Your task to perform on an android device: change notification settings in the gmail app Image 0: 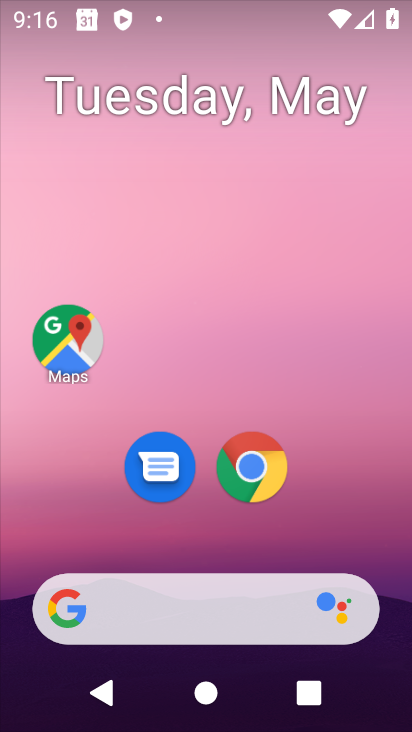
Step 0: drag from (321, 524) to (273, 50)
Your task to perform on an android device: change notification settings in the gmail app Image 1: 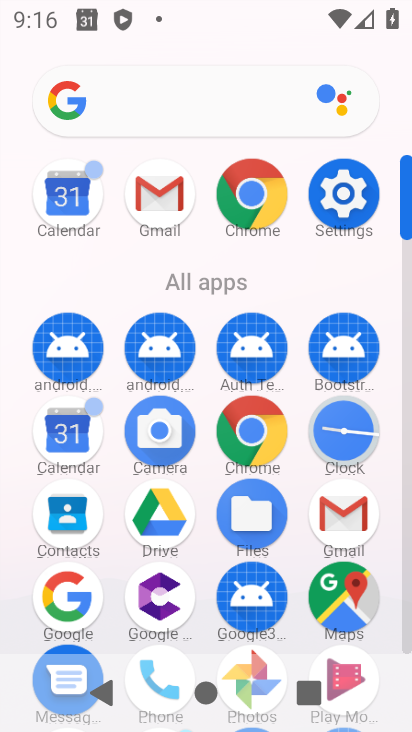
Step 1: drag from (23, 612) to (36, 299)
Your task to perform on an android device: change notification settings in the gmail app Image 2: 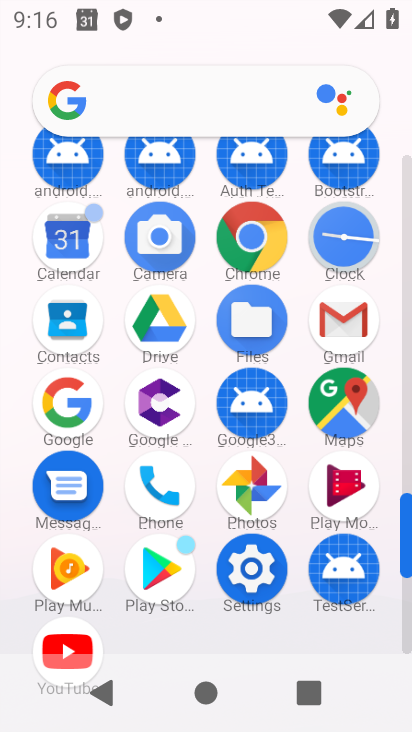
Step 2: click (344, 313)
Your task to perform on an android device: change notification settings in the gmail app Image 3: 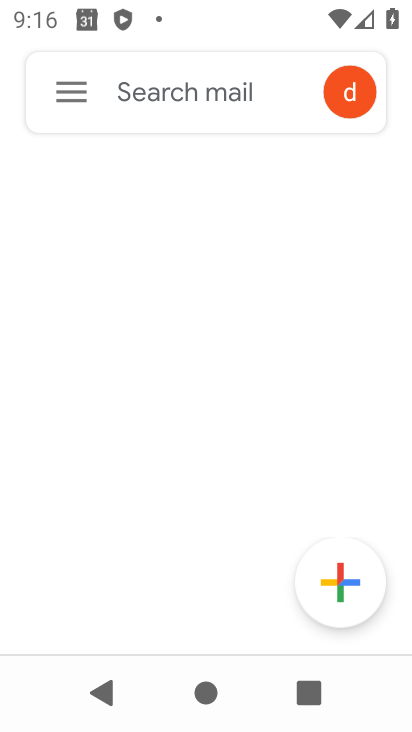
Step 3: click (65, 82)
Your task to perform on an android device: change notification settings in the gmail app Image 4: 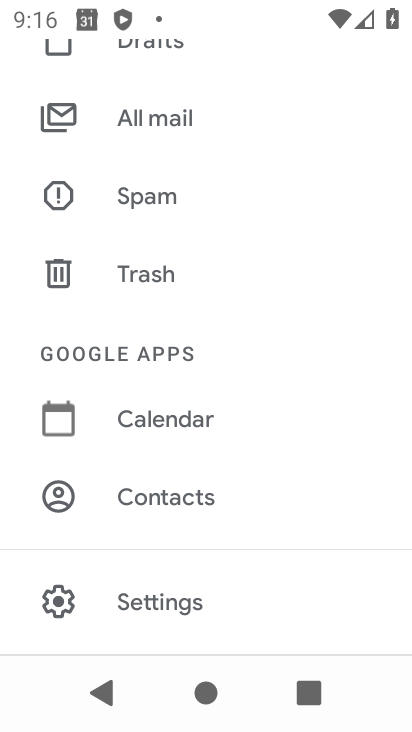
Step 4: drag from (256, 581) to (263, 149)
Your task to perform on an android device: change notification settings in the gmail app Image 5: 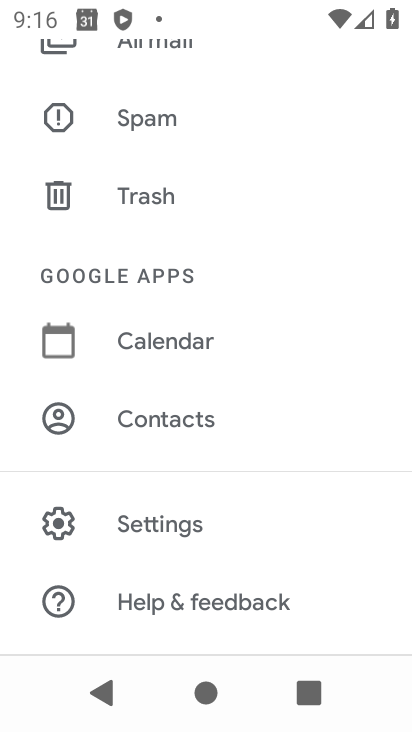
Step 5: click (145, 520)
Your task to perform on an android device: change notification settings in the gmail app Image 6: 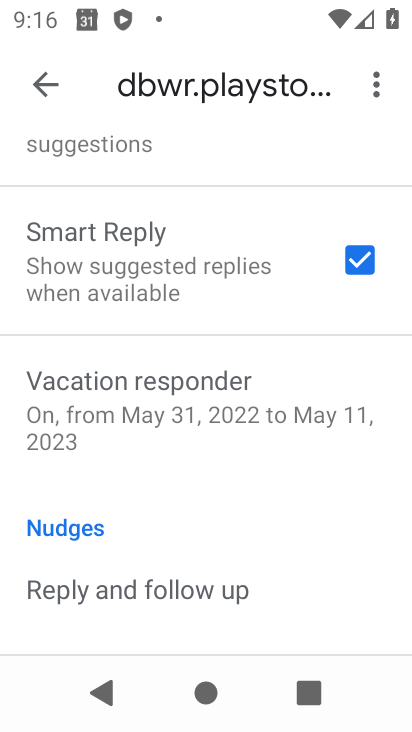
Step 6: drag from (179, 228) to (164, 620)
Your task to perform on an android device: change notification settings in the gmail app Image 7: 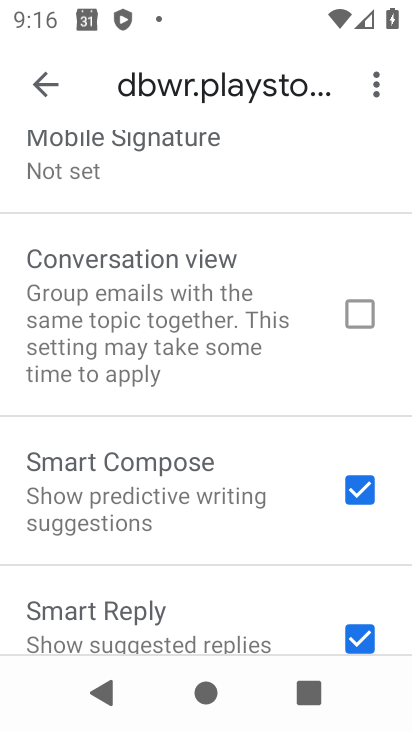
Step 7: drag from (224, 175) to (220, 584)
Your task to perform on an android device: change notification settings in the gmail app Image 8: 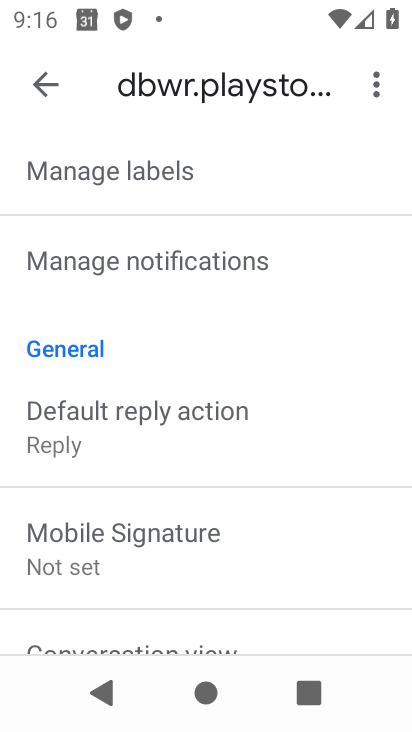
Step 8: click (197, 258)
Your task to perform on an android device: change notification settings in the gmail app Image 9: 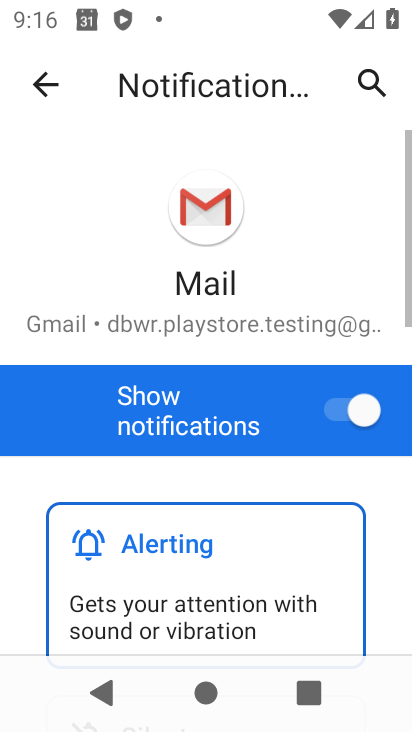
Step 9: click (321, 407)
Your task to perform on an android device: change notification settings in the gmail app Image 10: 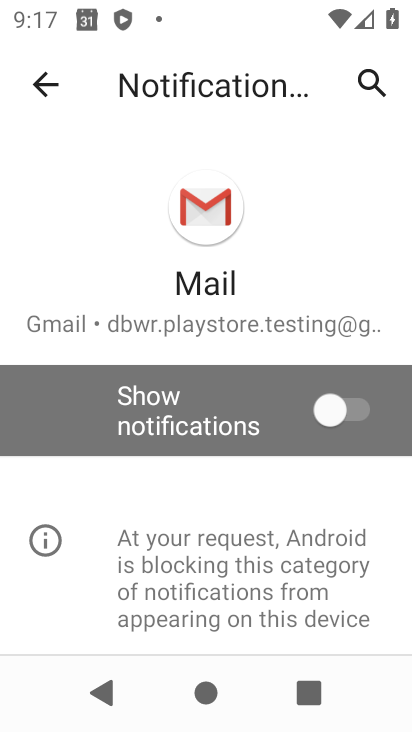
Step 10: task complete